Your task to perform on an android device: allow notifications from all sites in the chrome app Image 0: 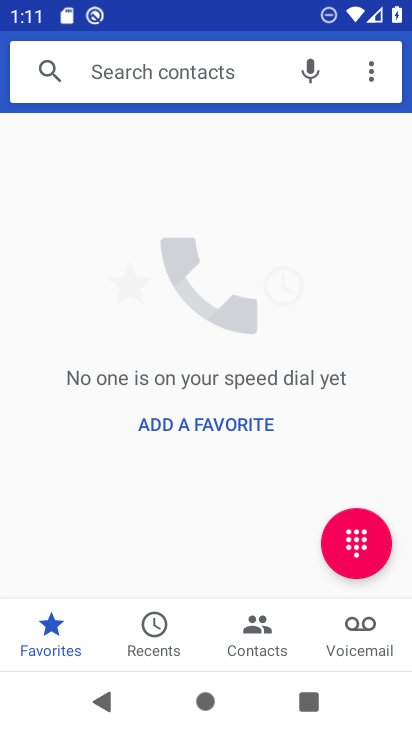
Step 0: press home button
Your task to perform on an android device: allow notifications from all sites in the chrome app Image 1: 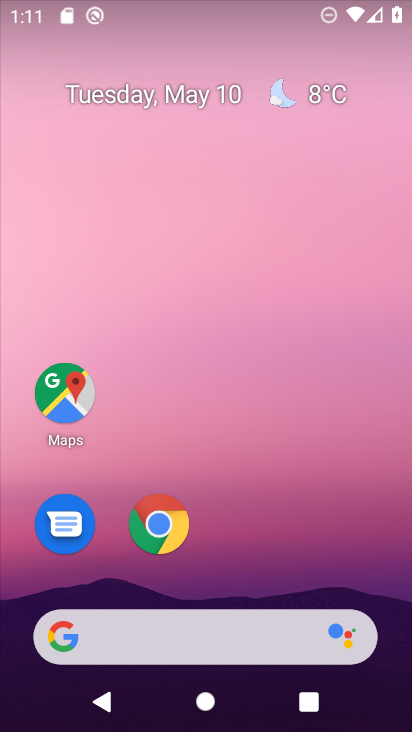
Step 1: click (154, 535)
Your task to perform on an android device: allow notifications from all sites in the chrome app Image 2: 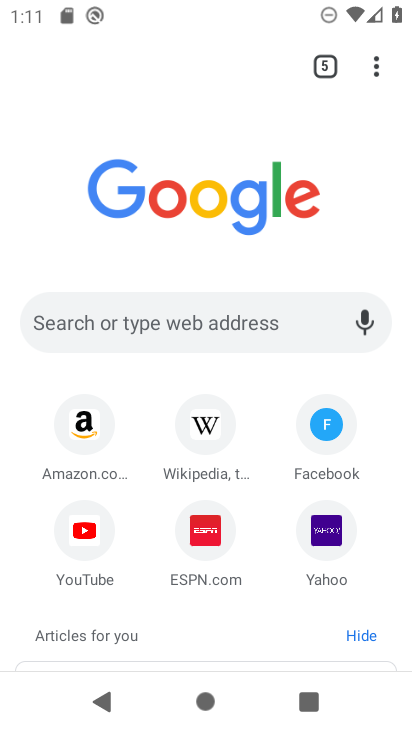
Step 2: click (378, 66)
Your task to perform on an android device: allow notifications from all sites in the chrome app Image 3: 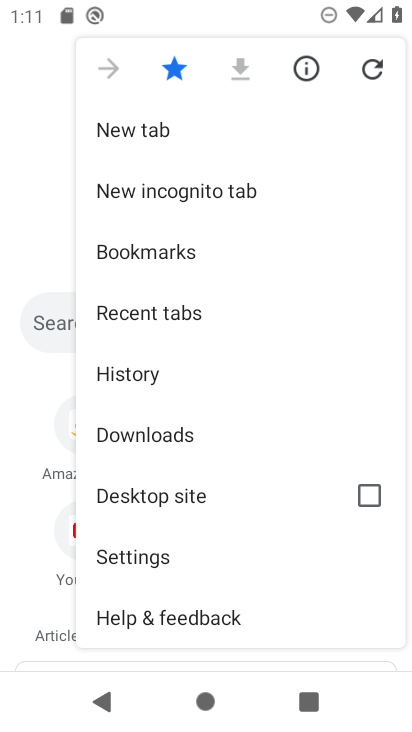
Step 3: click (176, 547)
Your task to perform on an android device: allow notifications from all sites in the chrome app Image 4: 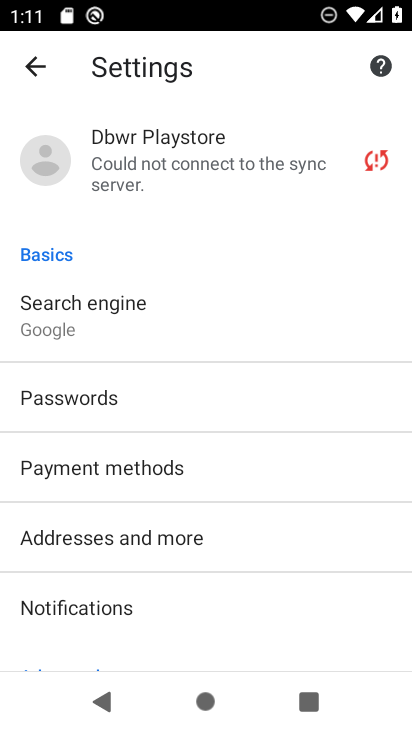
Step 4: click (175, 599)
Your task to perform on an android device: allow notifications from all sites in the chrome app Image 5: 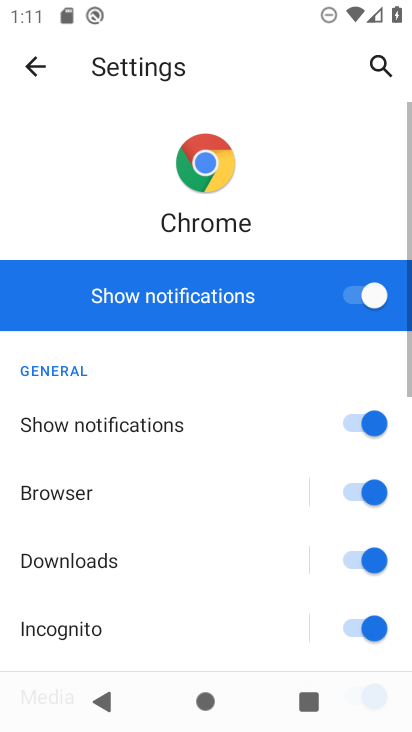
Step 5: task complete